Your task to perform on an android device: Open accessibility settings Image 0: 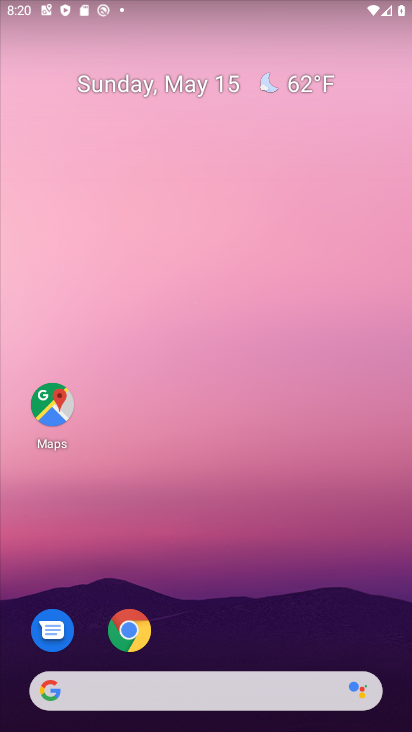
Step 0: drag from (273, 609) to (306, 17)
Your task to perform on an android device: Open accessibility settings Image 1: 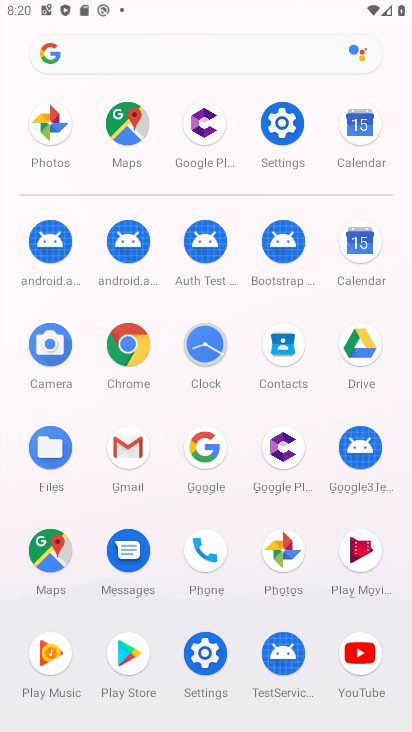
Step 1: click (282, 118)
Your task to perform on an android device: Open accessibility settings Image 2: 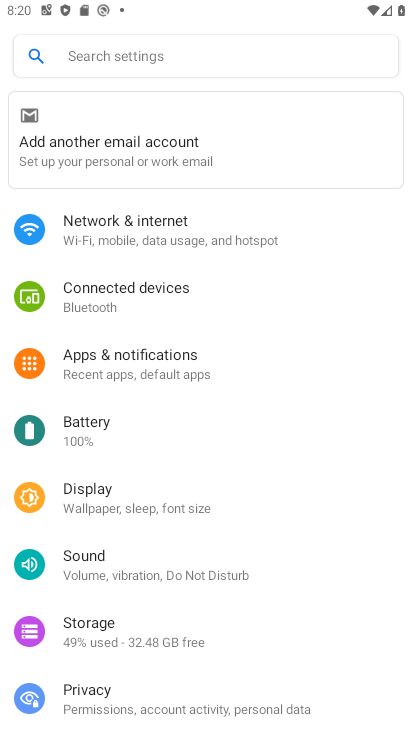
Step 2: drag from (200, 538) to (284, 117)
Your task to perform on an android device: Open accessibility settings Image 3: 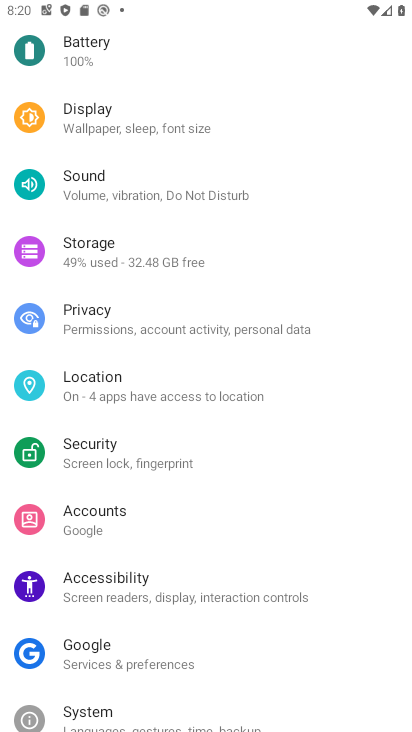
Step 3: click (151, 596)
Your task to perform on an android device: Open accessibility settings Image 4: 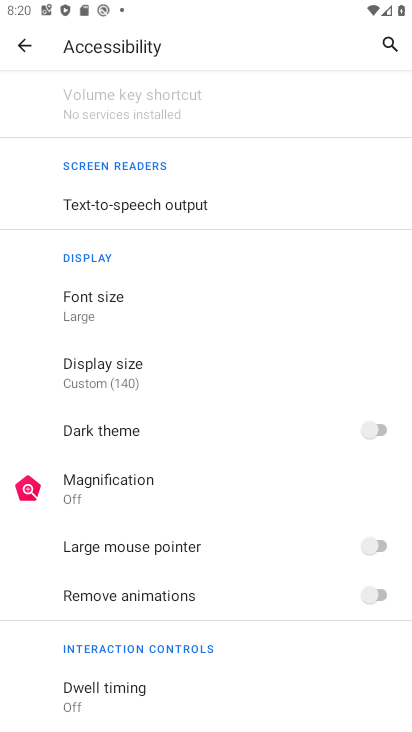
Step 4: task complete